Your task to perform on an android device: see sites visited before in the chrome app Image 0: 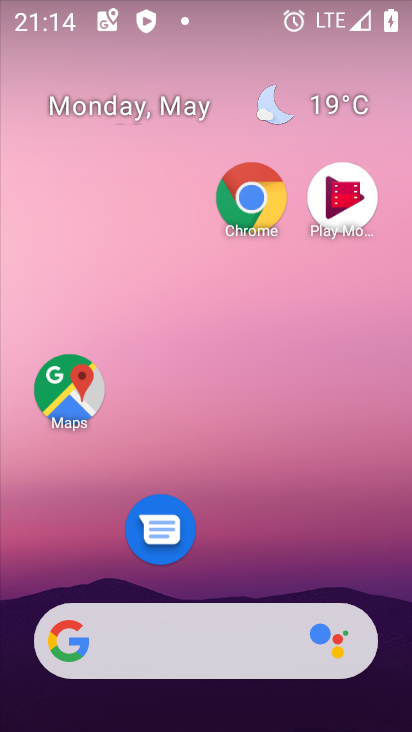
Step 0: click (247, 211)
Your task to perform on an android device: see sites visited before in the chrome app Image 1: 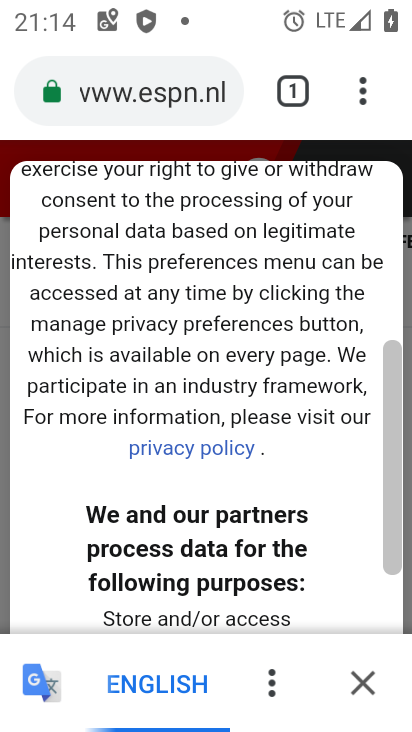
Step 1: click (364, 84)
Your task to perform on an android device: see sites visited before in the chrome app Image 2: 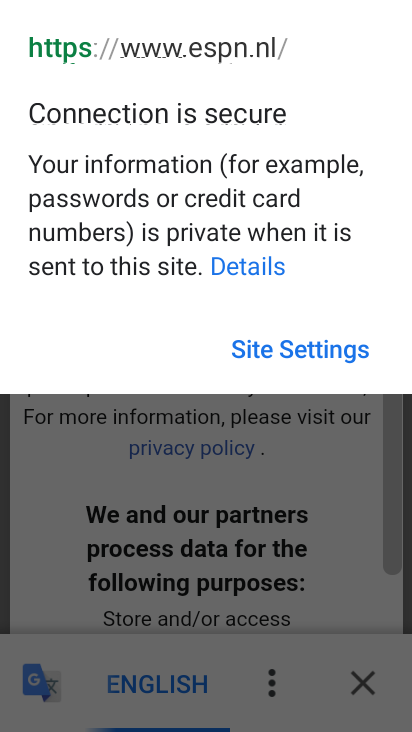
Step 2: click (253, 478)
Your task to perform on an android device: see sites visited before in the chrome app Image 3: 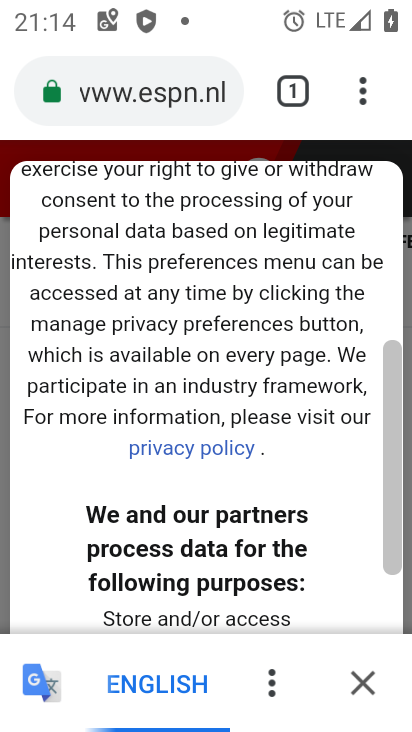
Step 3: click (361, 97)
Your task to perform on an android device: see sites visited before in the chrome app Image 4: 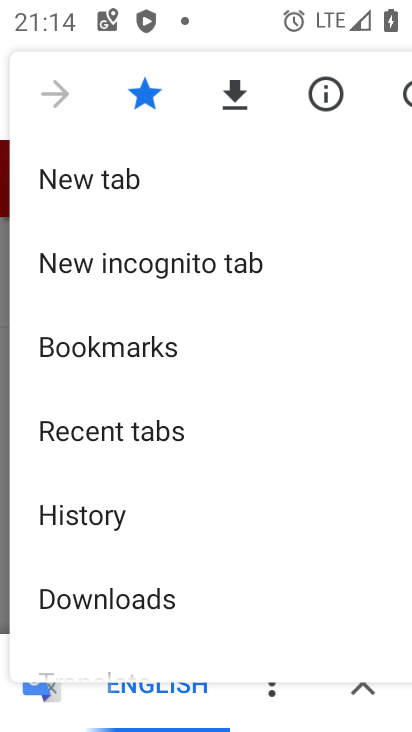
Step 4: drag from (195, 572) to (194, 208)
Your task to perform on an android device: see sites visited before in the chrome app Image 5: 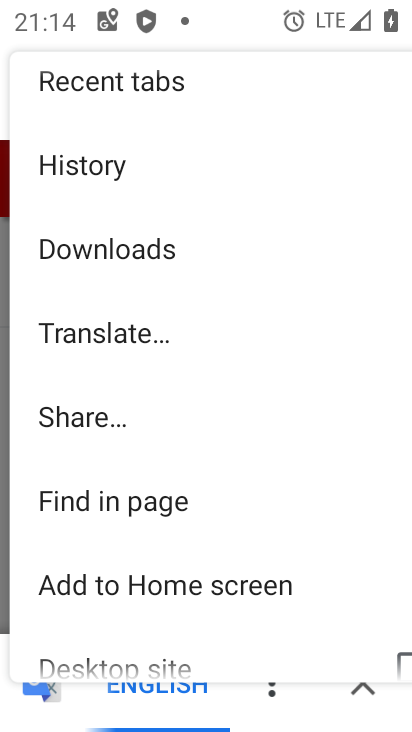
Step 5: drag from (125, 639) to (135, 281)
Your task to perform on an android device: see sites visited before in the chrome app Image 6: 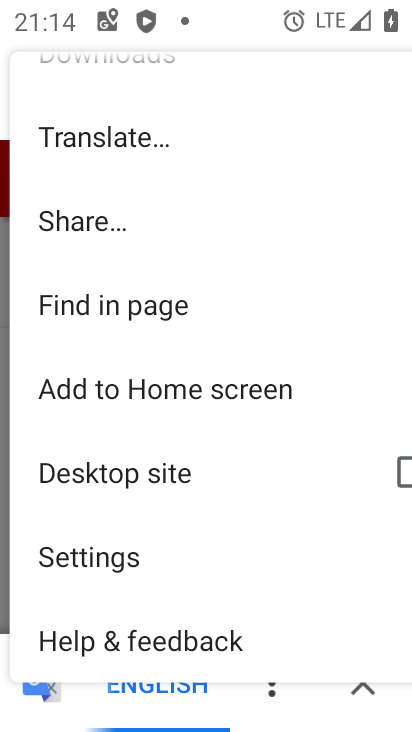
Step 6: drag from (177, 199) to (143, 544)
Your task to perform on an android device: see sites visited before in the chrome app Image 7: 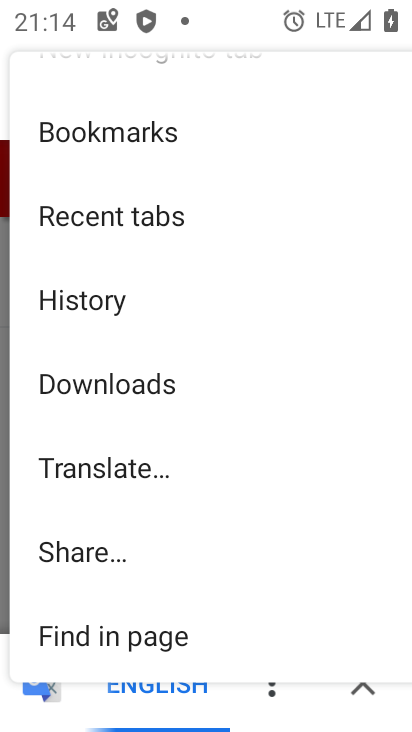
Step 7: click (96, 294)
Your task to perform on an android device: see sites visited before in the chrome app Image 8: 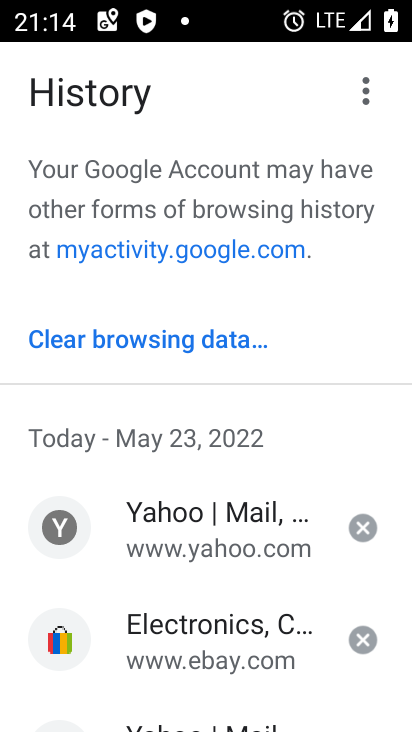
Step 8: task complete